Your task to perform on an android device: Toggle the flashlight Image 0: 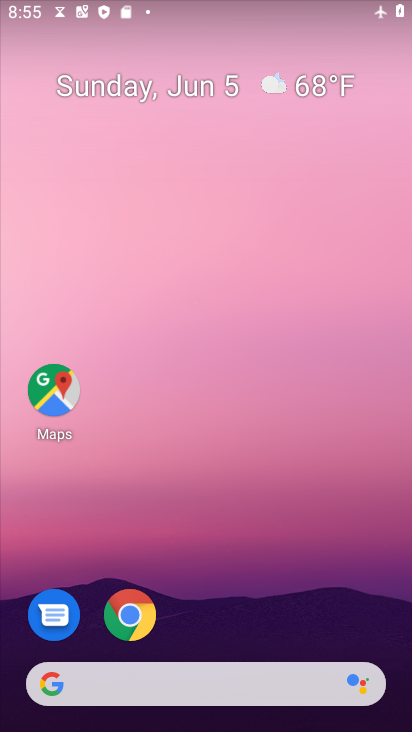
Step 0: drag from (151, 9) to (0, 342)
Your task to perform on an android device: Toggle the flashlight Image 1: 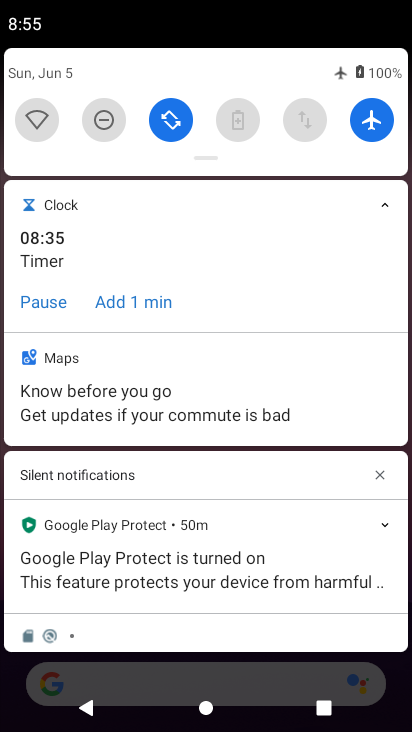
Step 1: task complete